Your task to perform on an android device: change notifications settings Image 0: 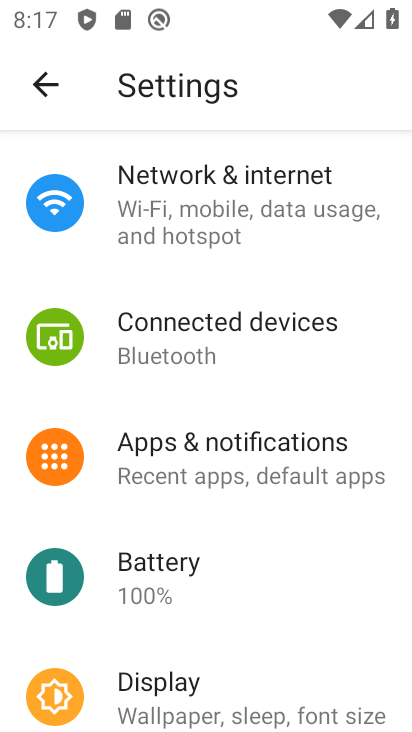
Step 0: click (195, 477)
Your task to perform on an android device: change notifications settings Image 1: 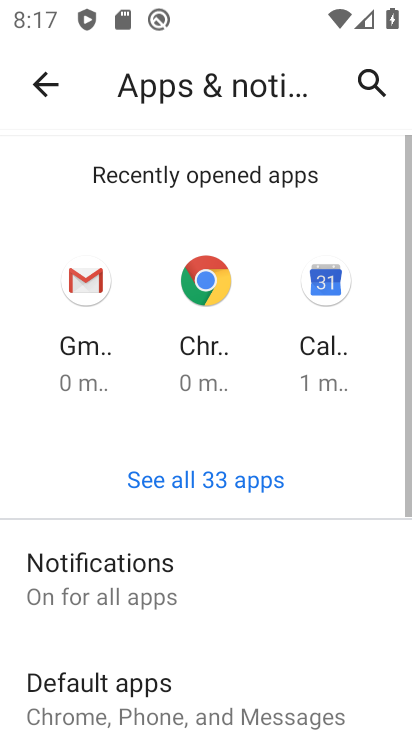
Step 1: click (130, 572)
Your task to perform on an android device: change notifications settings Image 2: 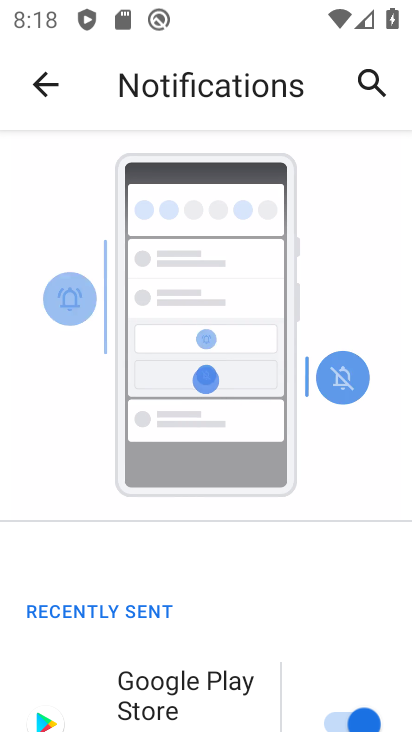
Step 2: drag from (242, 580) to (252, 516)
Your task to perform on an android device: change notifications settings Image 3: 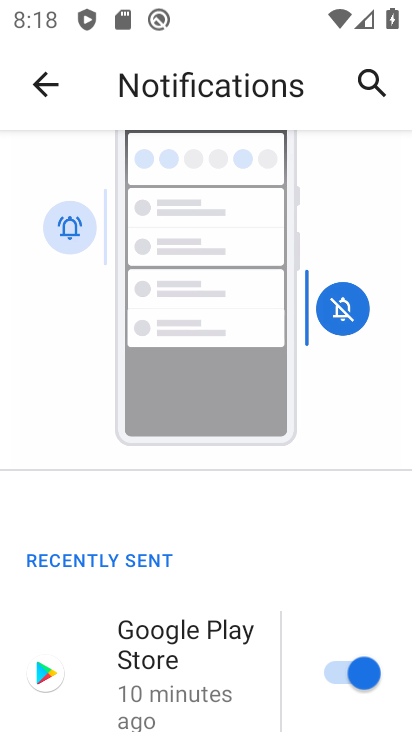
Step 3: drag from (229, 710) to (224, 352)
Your task to perform on an android device: change notifications settings Image 4: 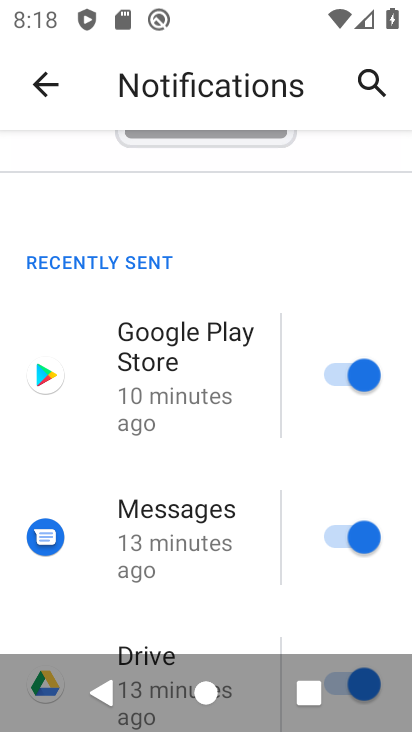
Step 4: drag from (153, 558) to (193, 147)
Your task to perform on an android device: change notifications settings Image 5: 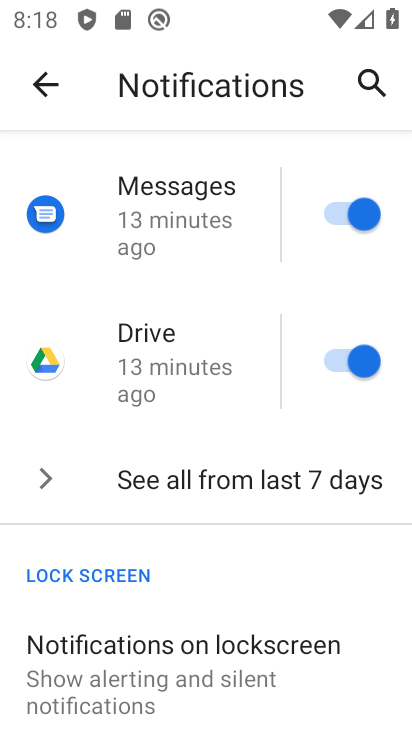
Step 5: drag from (168, 563) to (212, 174)
Your task to perform on an android device: change notifications settings Image 6: 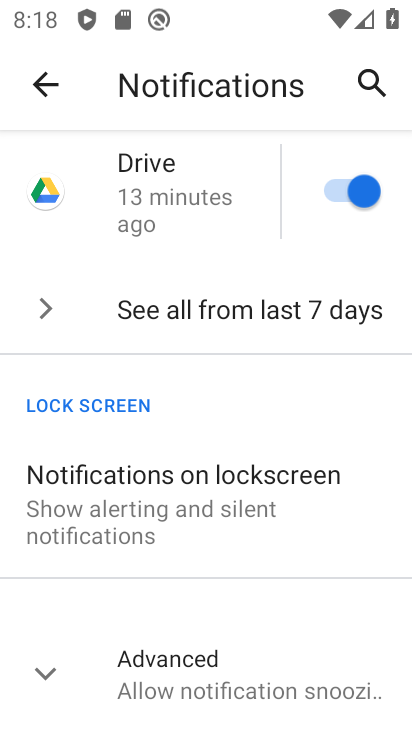
Step 6: click (174, 547)
Your task to perform on an android device: change notifications settings Image 7: 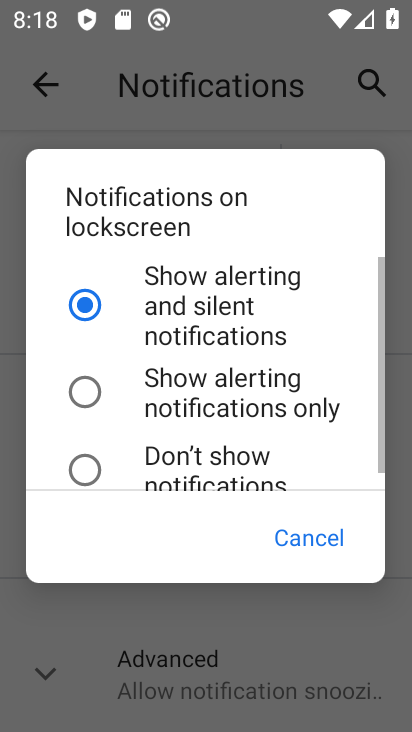
Step 7: click (86, 463)
Your task to perform on an android device: change notifications settings Image 8: 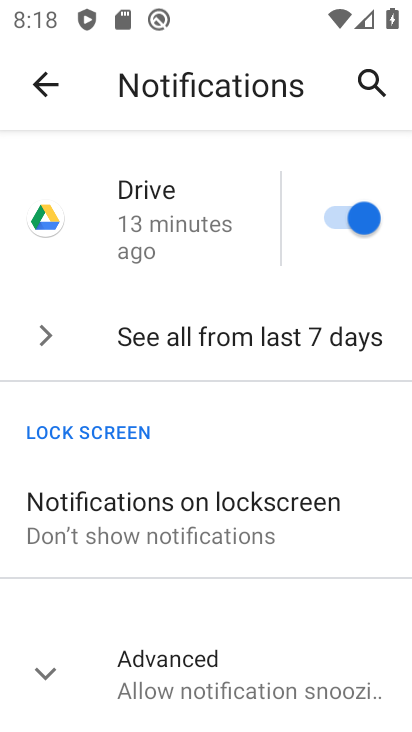
Step 8: task complete